Your task to perform on an android device: turn off airplane mode Image 0: 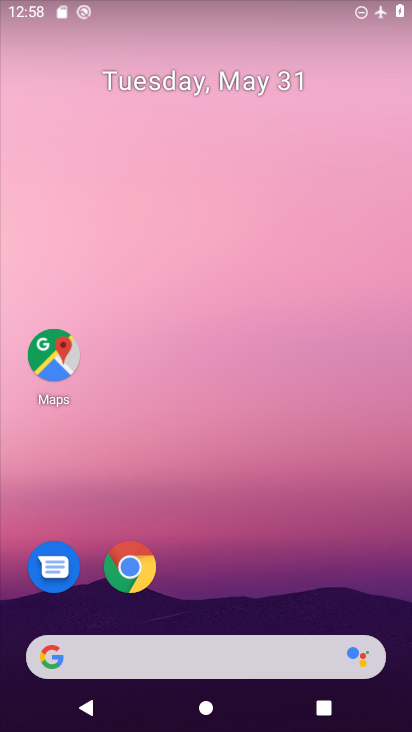
Step 0: drag from (200, 576) to (209, 158)
Your task to perform on an android device: turn off airplane mode Image 1: 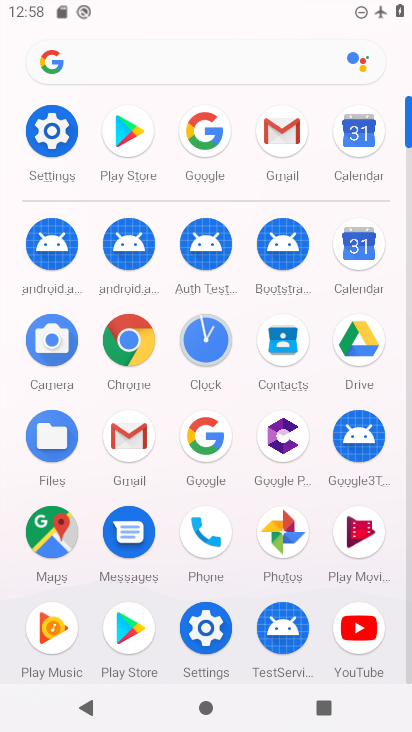
Step 1: click (68, 135)
Your task to perform on an android device: turn off airplane mode Image 2: 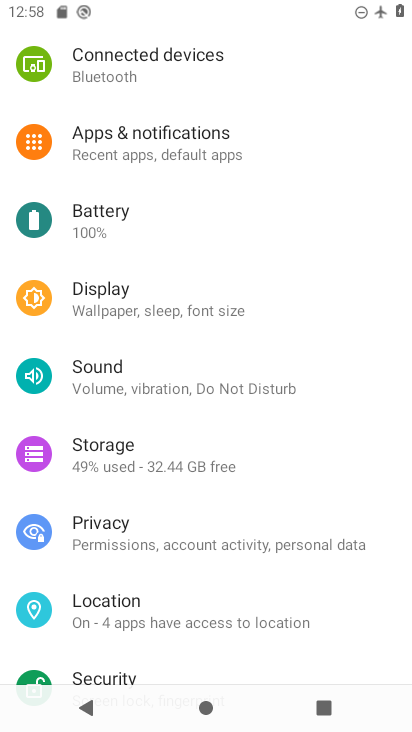
Step 2: drag from (188, 137) to (207, 495)
Your task to perform on an android device: turn off airplane mode Image 3: 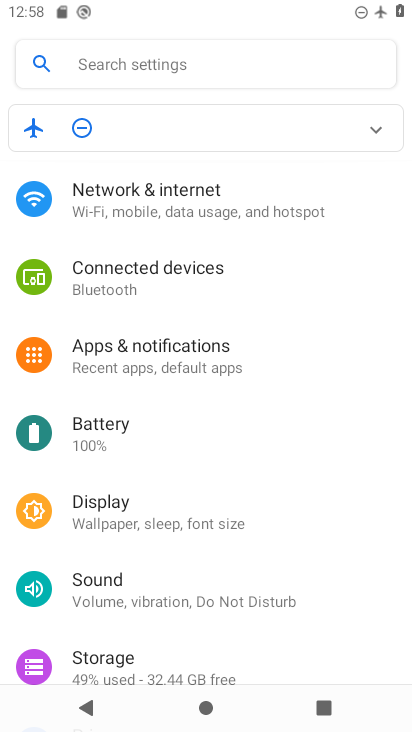
Step 3: click (227, 231)
Your task to perform on an android device: turn off airplane mode Image 4: 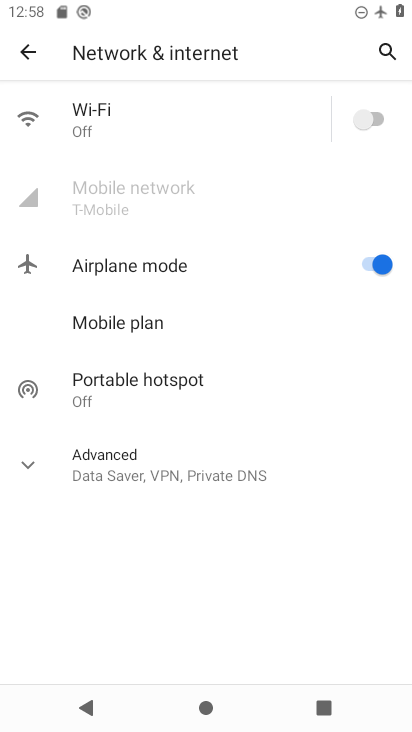
Step 4: click (362, 253)
Your task to perform on an android device: turn off airplane mode Image 5: 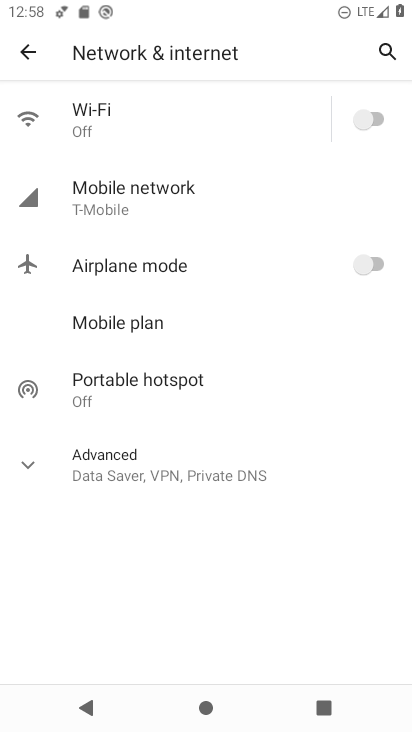
Step 5: task complete